Your task to perform on an android device: Is it going to rain tomorrow? Image 0: 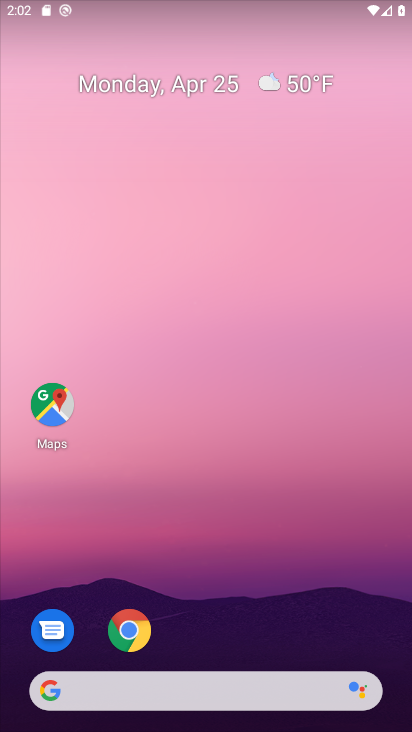
Step 0: click (300, 89)
Your task to perform on an android device: Is it going to rain tomorrow? Image 1: 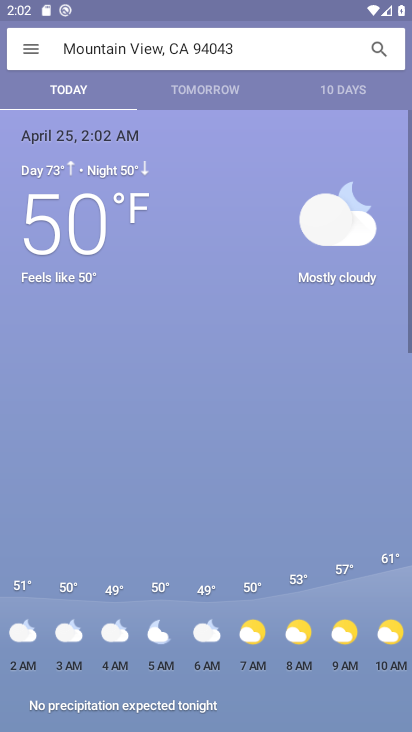
Step 1: click (201, 85)
Your task to perform on an android device: Is it going to rain tomorrow? Image 2: 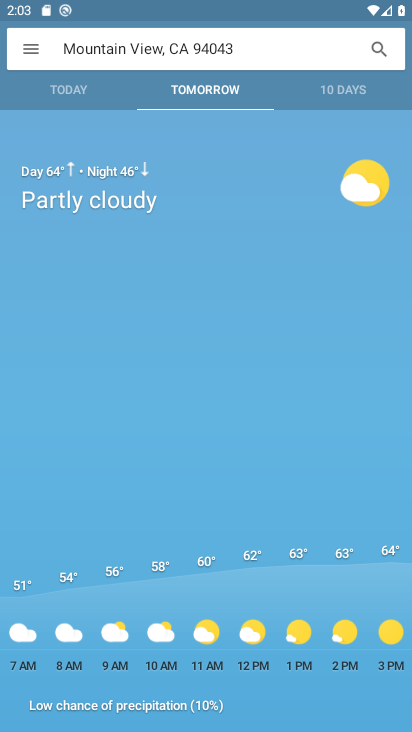
Step 2: task complete